Your task to perform on an android device: View the shopping cart on amazon. Add "dell xps" to the cart on amazon, then select checkout. Image 0: 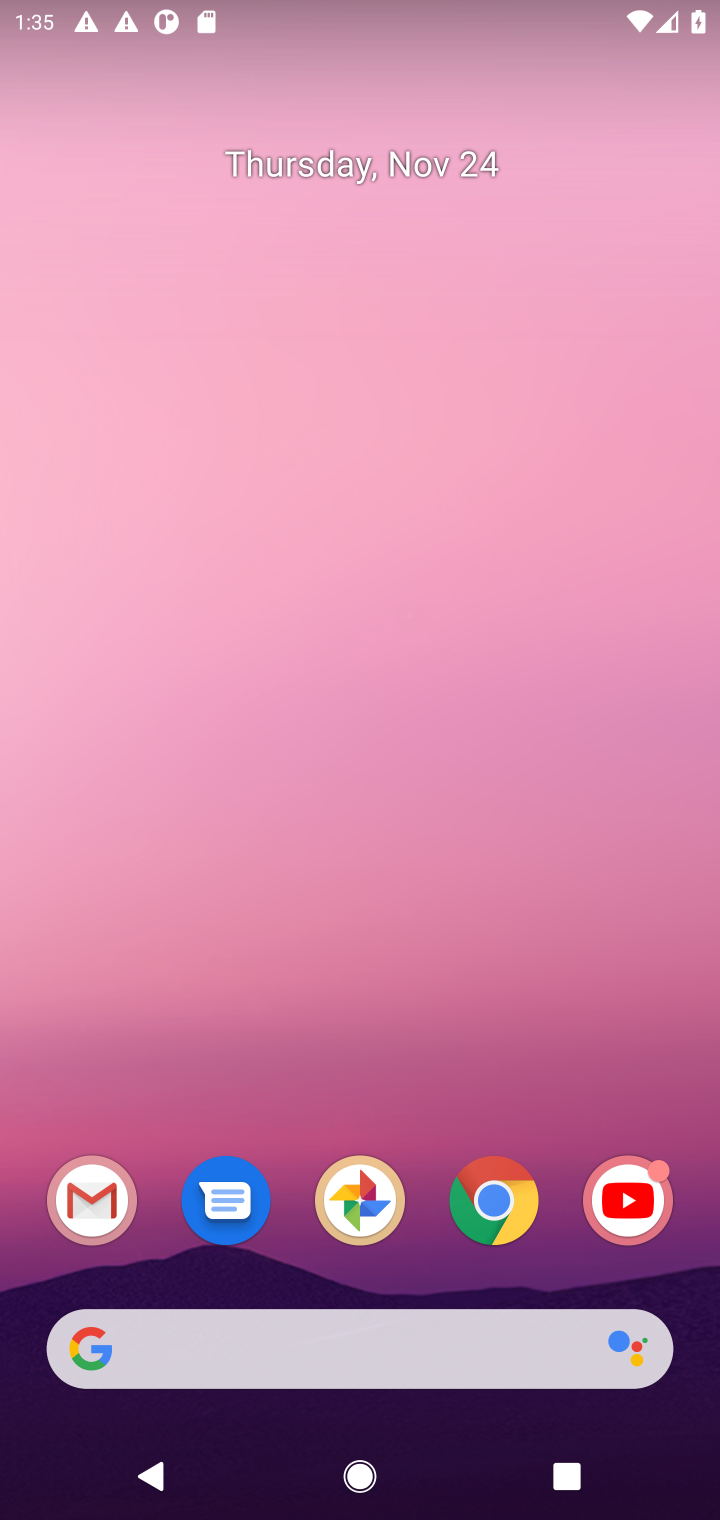
Step 0: click (367, 1349)
Your task to perform on an android device: View the shopping cart on amazon. Add "dell xps" to the cart on amazon, then select checkout. Image 1: 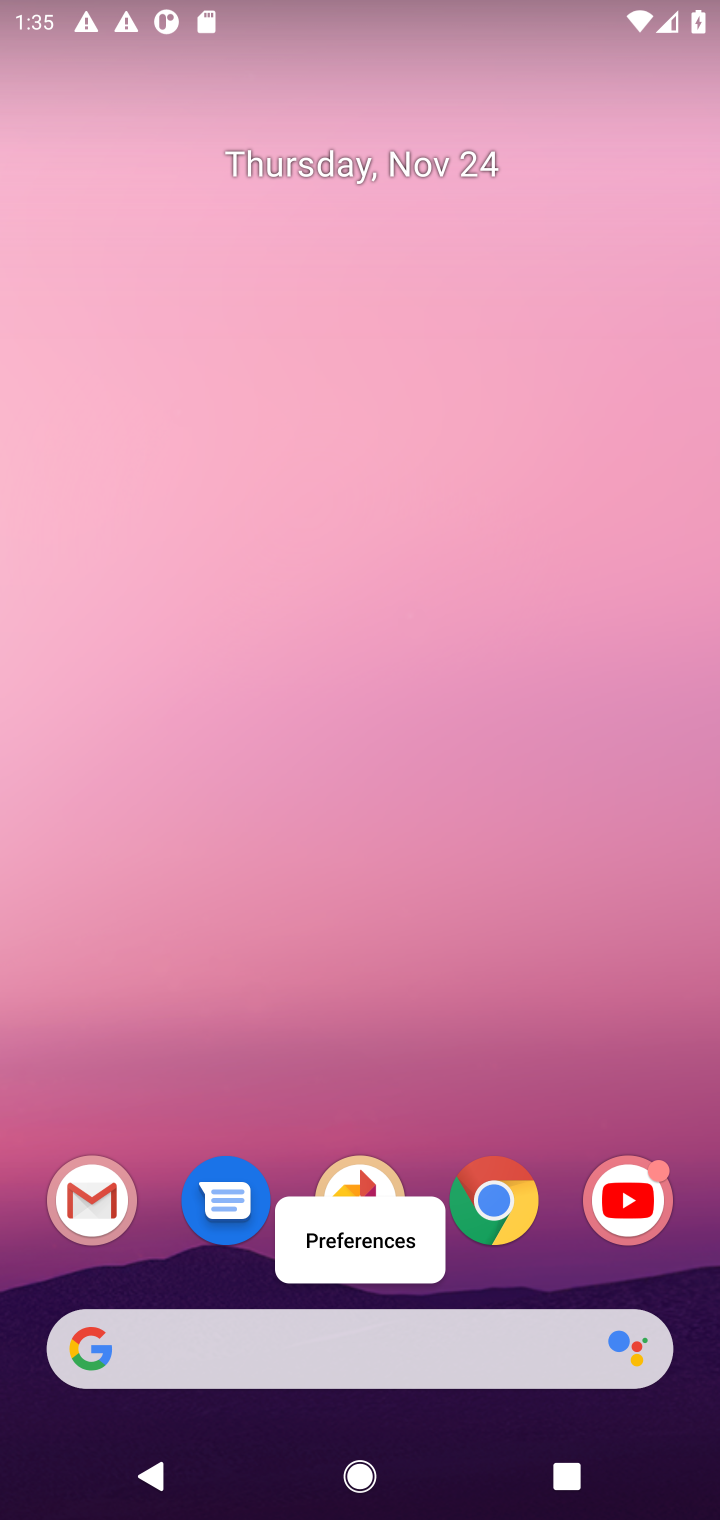
Step 1: type "amazon"
Your task to perform on an android device: View the shopping cart on amazon. Add "dell xps" to the cart on amazon, then select checkout. Image 2: 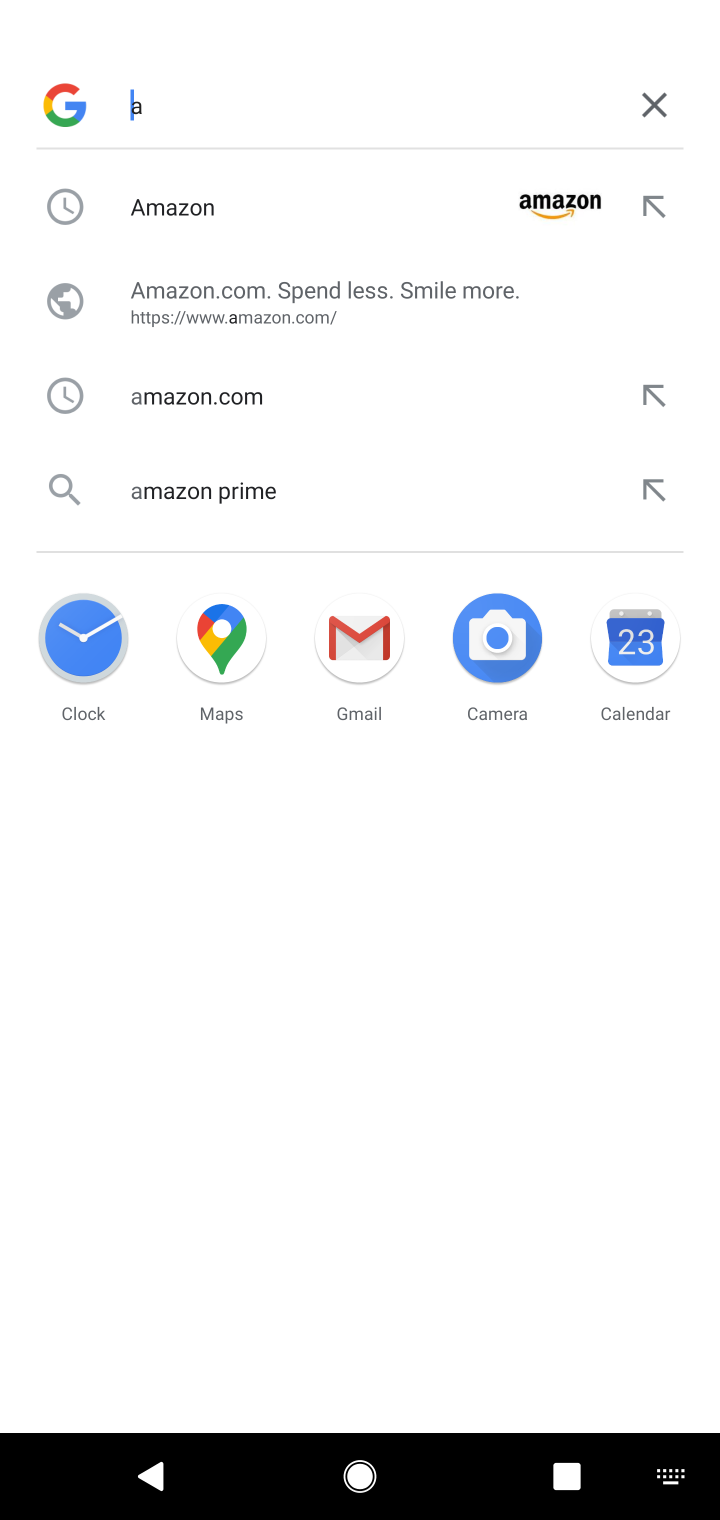
Step 2: click (230, 182)
Your task to perform on an android device: View the shopping cart on amazon. Add "dell xps" to the cart on amazon, then select checkout. Image 3: 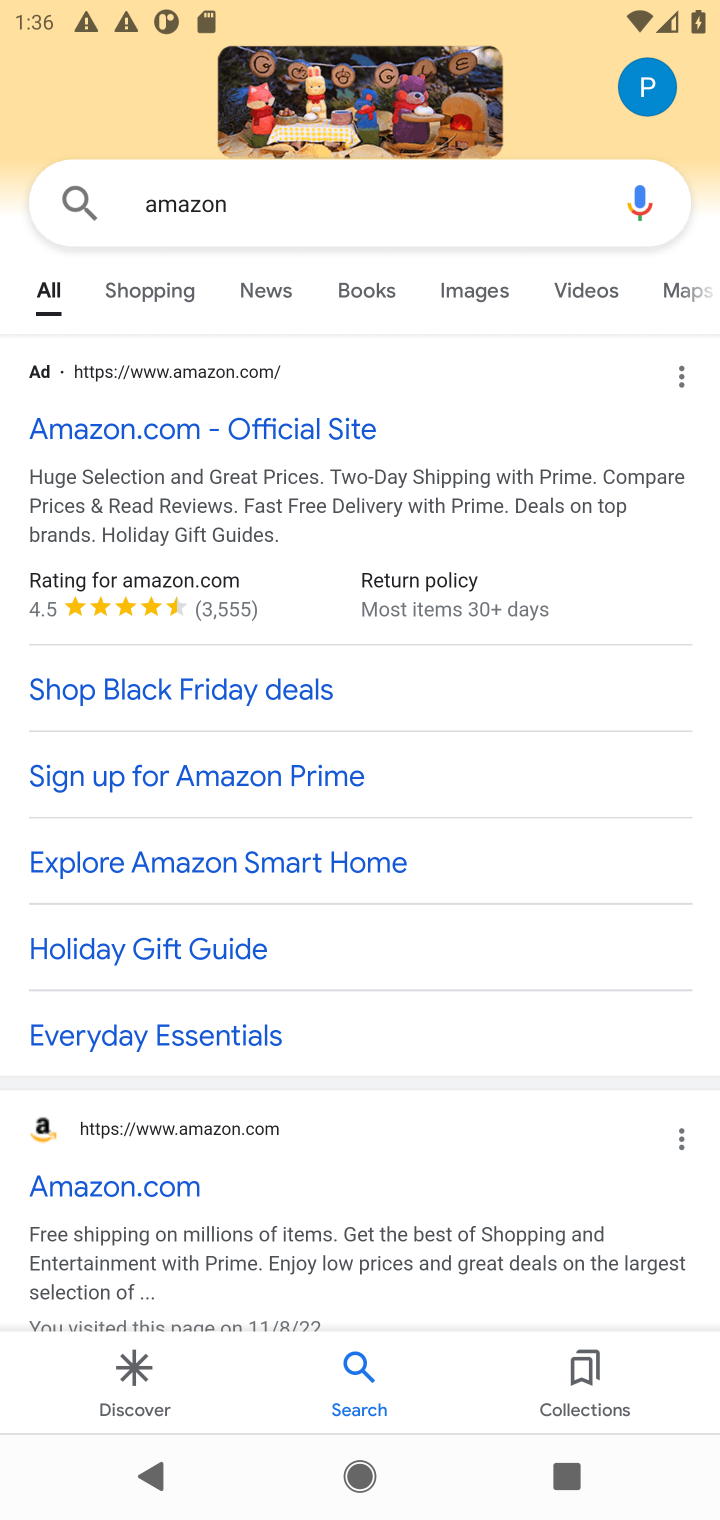
Step 3: click (144, 448)
Your task to perform on an android device: View the shopping cart on amazon. Add "dell xps" to the cart on amazon, then select checkout. Image 4: 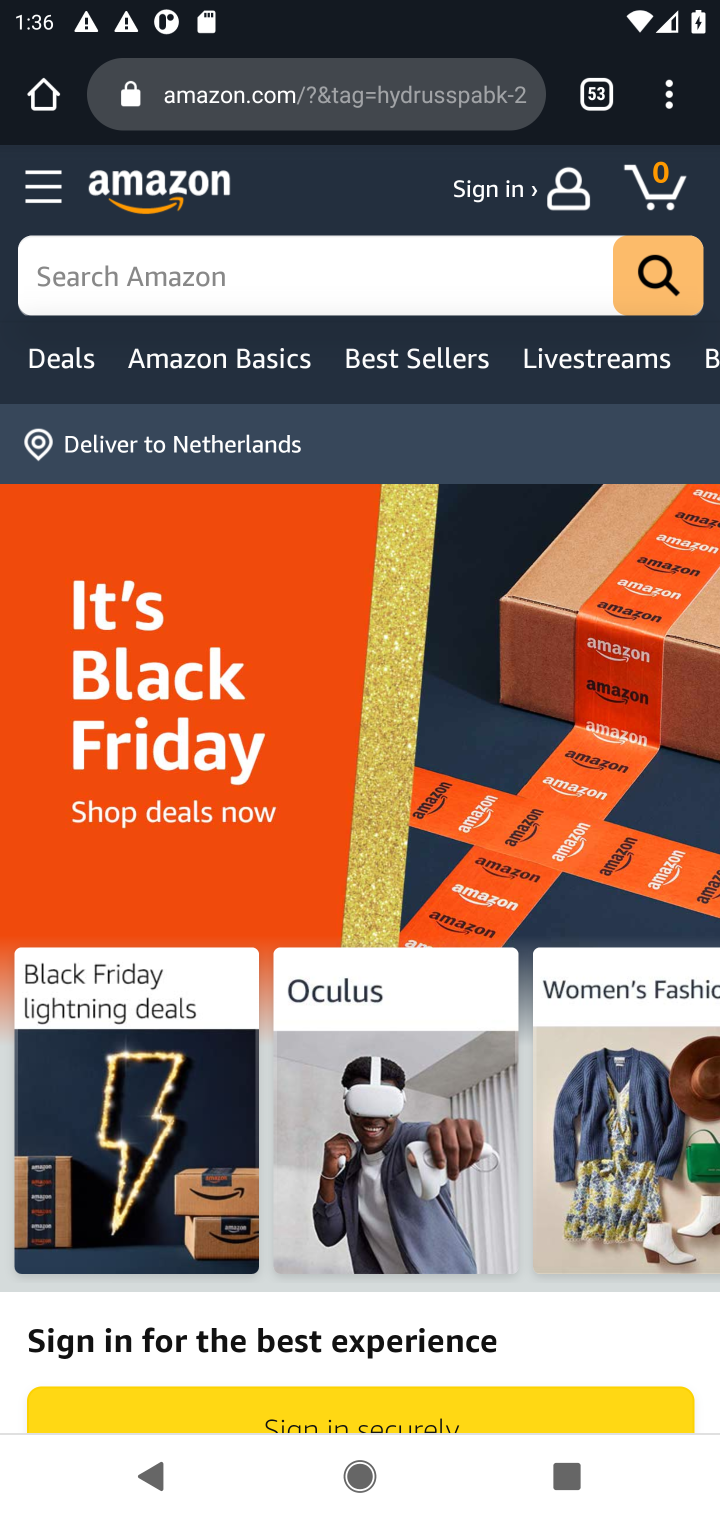
Step 4: click (222, 293)
Your task to perform on an android device: View the shopping cart on amazon. Add "dell xps" to the cart on amazon, then select checkout. Image 5: 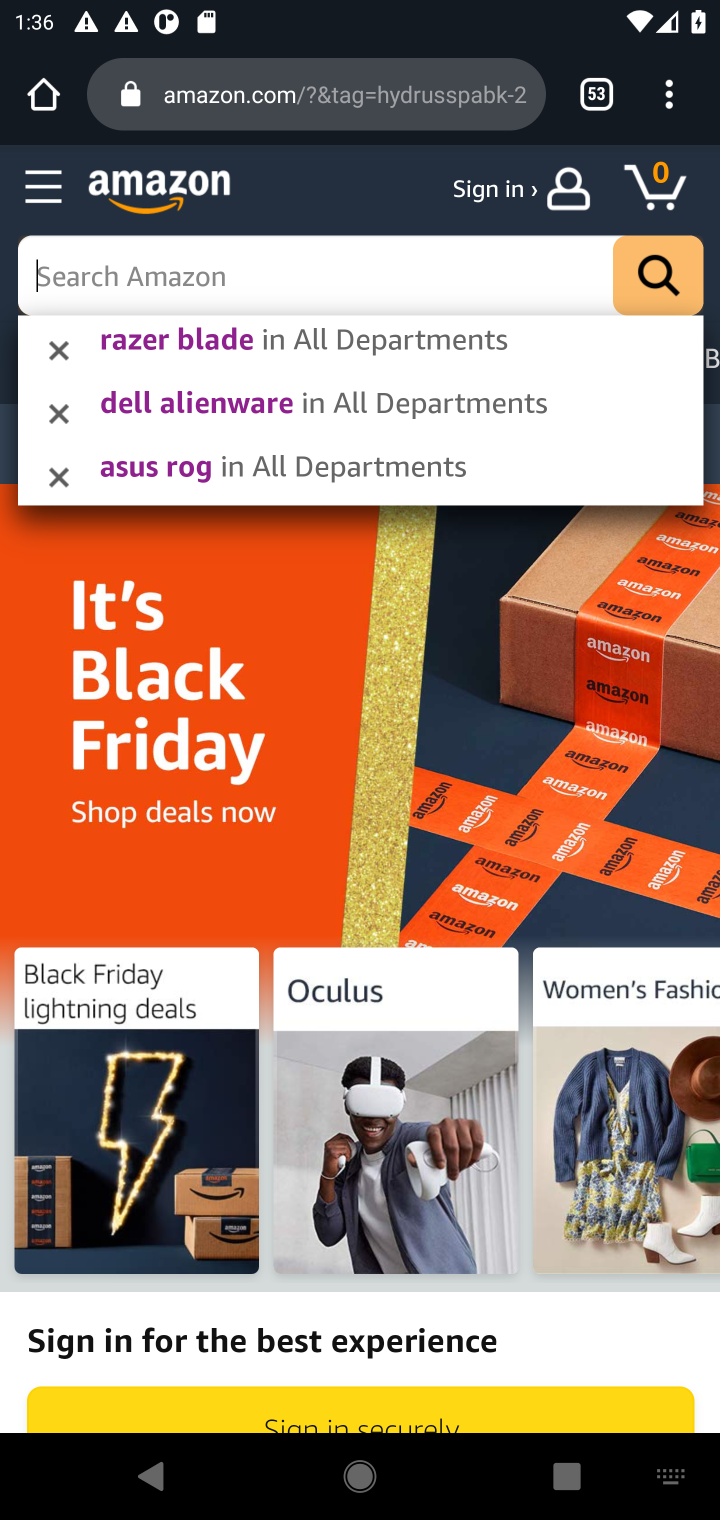
Step 5: type "dell xps"
Your task to perform on an android device: View the shopping cart on amazon. Add "dell xps" to the cart on amazon, then select checkout. Image 6: 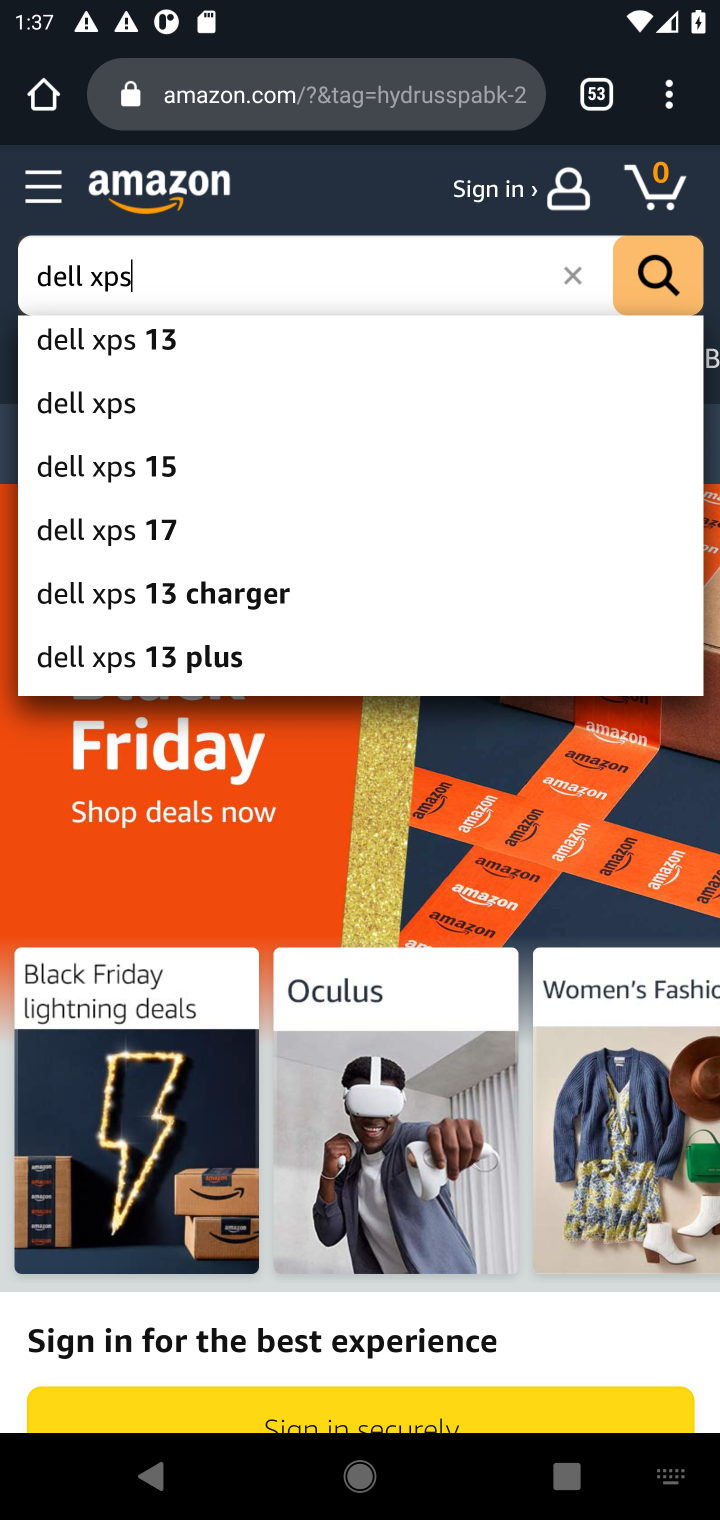
Step 6: click (628, 275)
Your task to perform on an android device: View the shopping cart on amazon. Add "dell xps" to the cart on amazon, then select checkout. Image 7: 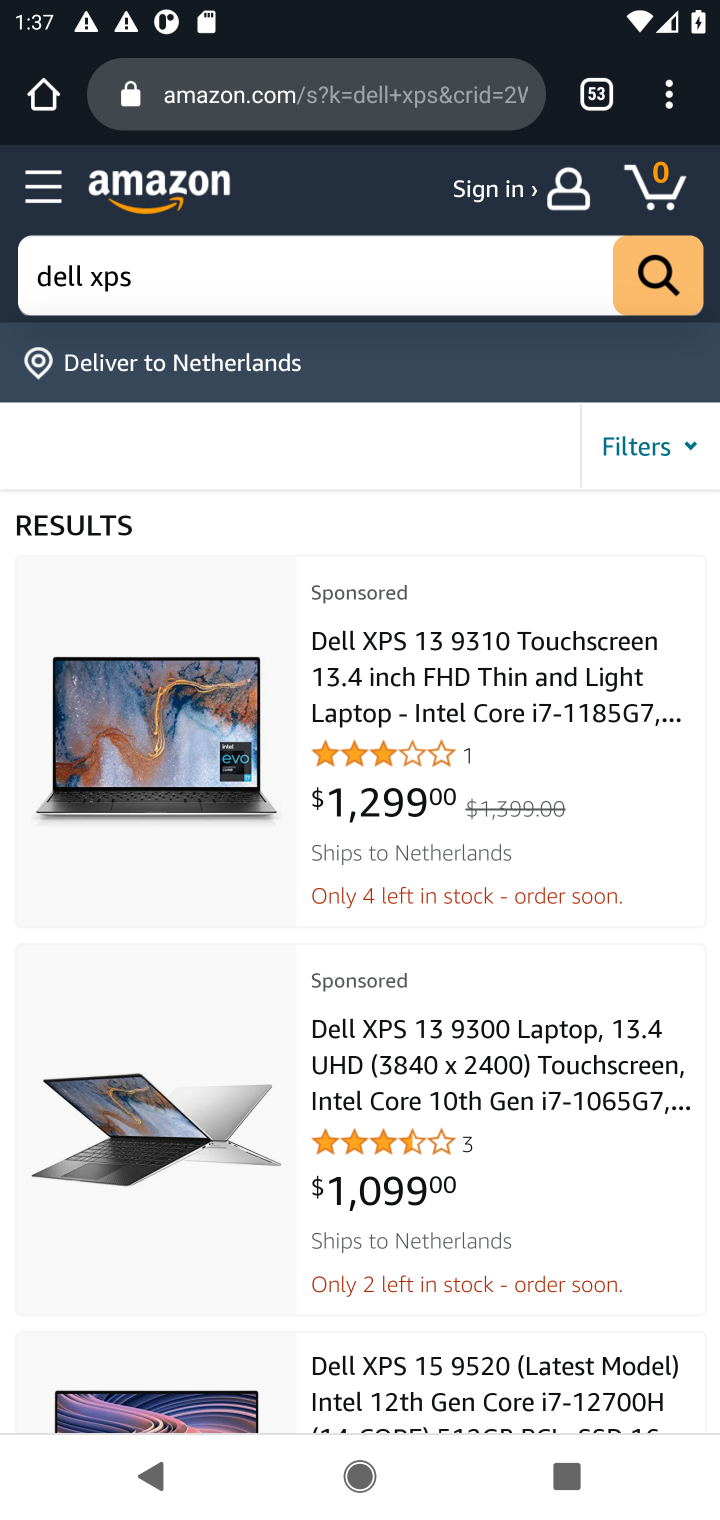
Step 7: click (427, 641)
Your task to perform on an android device: View the shopping cart on amazon. Add "dell xps" to the cart on amazon, then select checkout. Image 8: 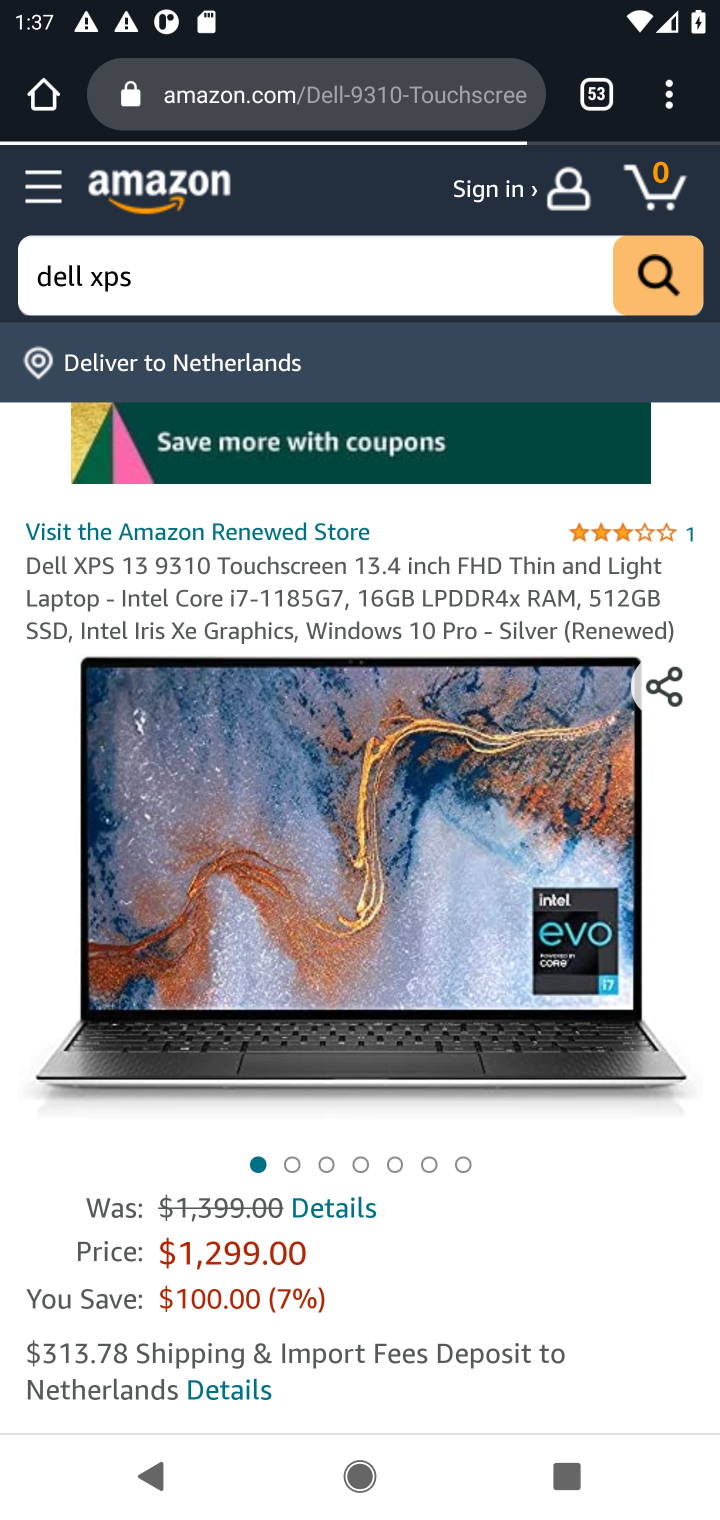
Step 8: drag from (545, 1282) to (300, 285)
Your task to perform on an android device: View the shopping cart on amazon. Add "dell xps" to the cart on amazon, then select checkout. Image 9: 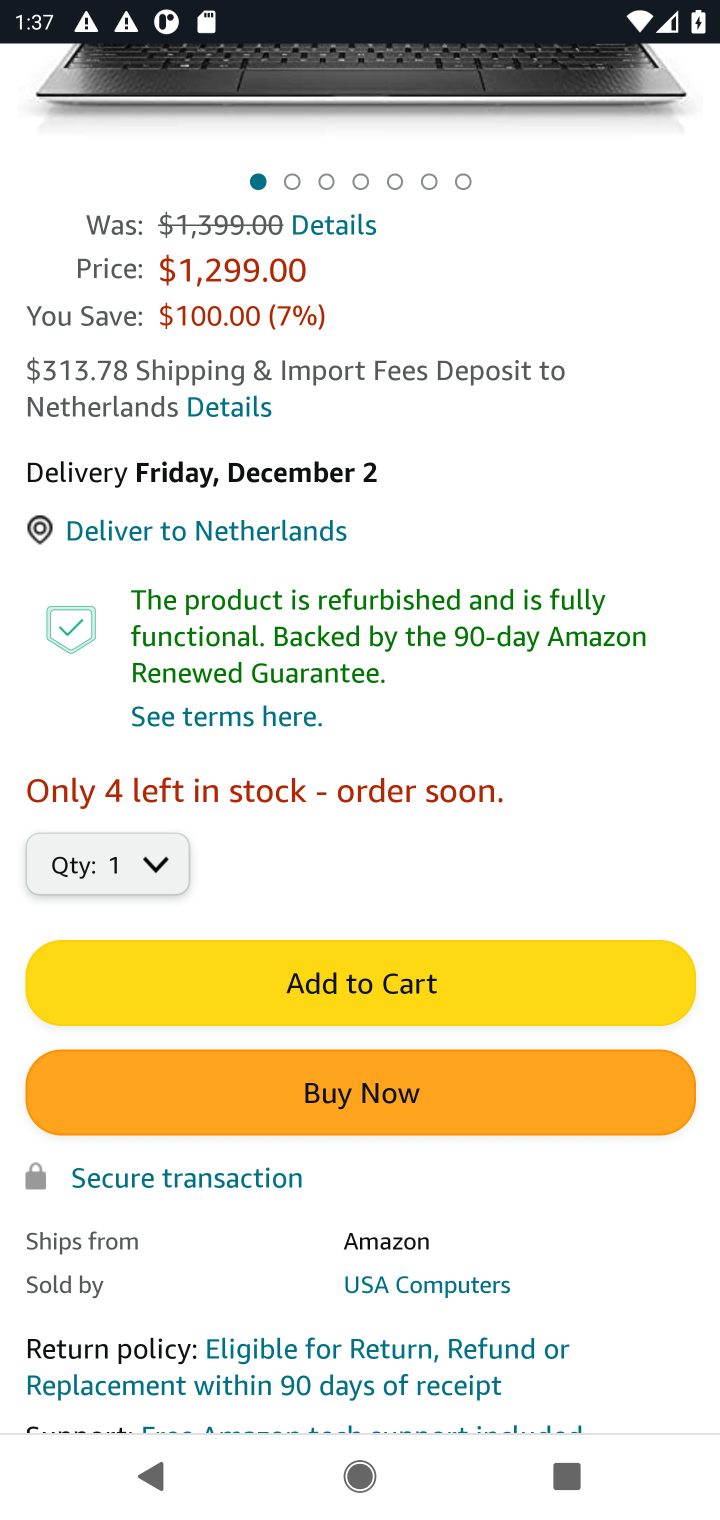
Step 9: click (383, 970)
Your task to perform on an android device: View the shopping cart on amazon. Add "dell xps" to the cart on amazon, then select checkout. Image 10: 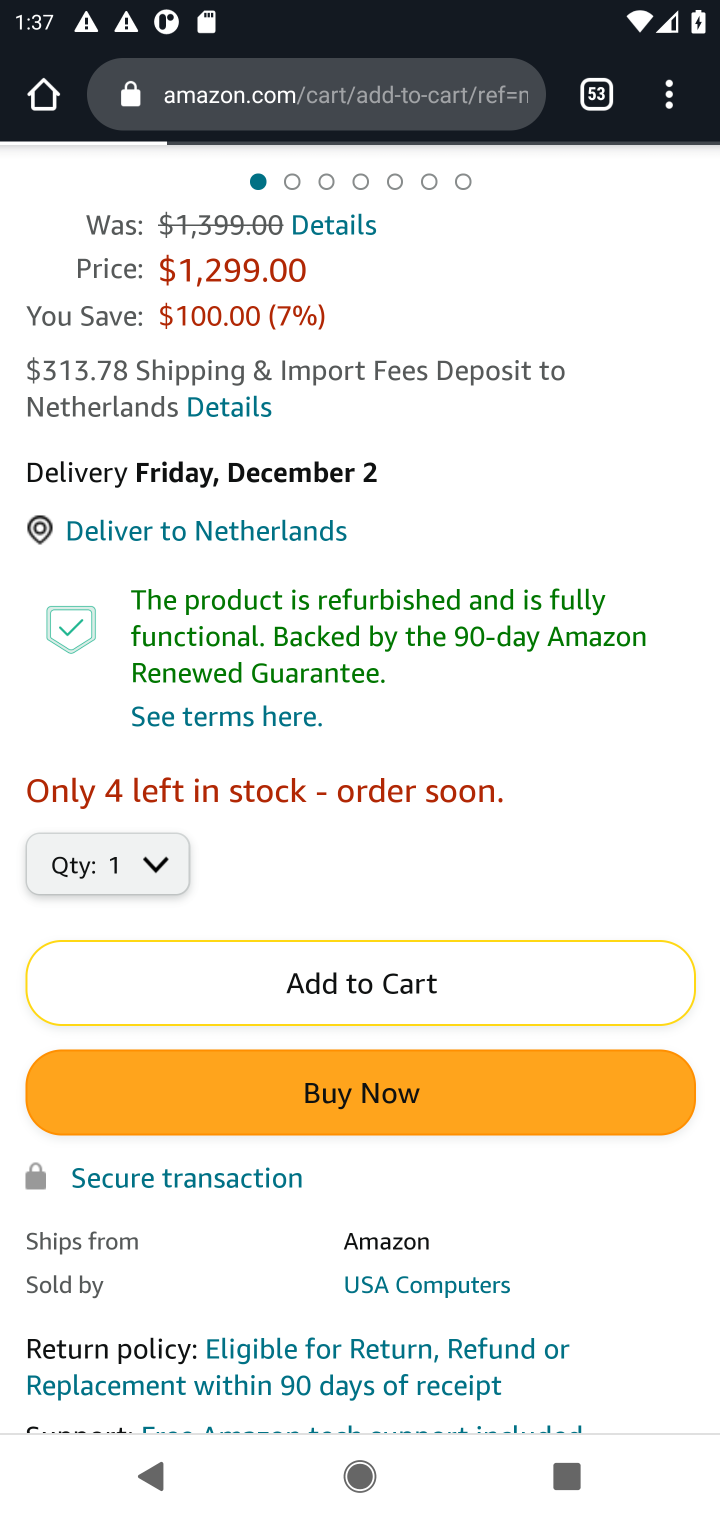
Step 10: task complete